Your task to perform on an android device: Open calendar and show me the fourth week of next month Image 0: 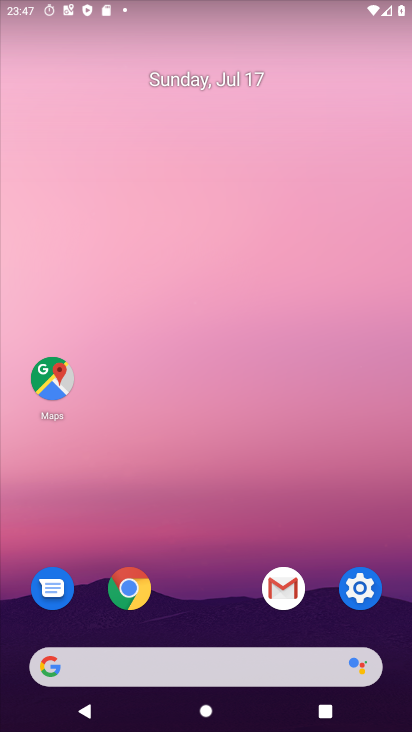
Step 0: drag from (245, 691) to (186, 292)
Your task to perform on an android device: Open calendar and show me the fourth week of next month Image 1: 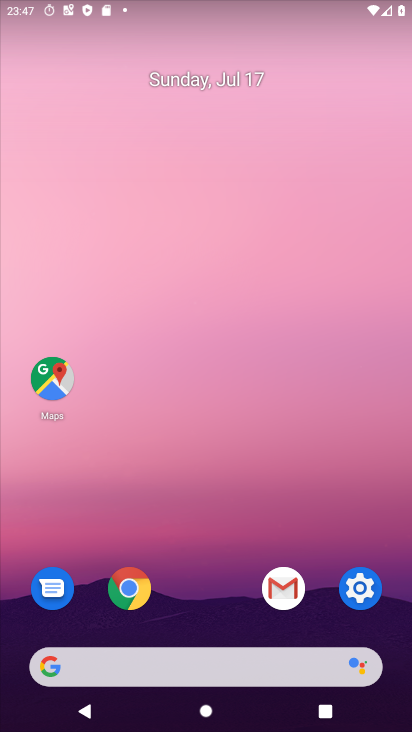
Step 1: drag from (227, 598) to (170, 90)
Your task to perform on an android device: Open calendar and show me the fourth week of next month Image 2: 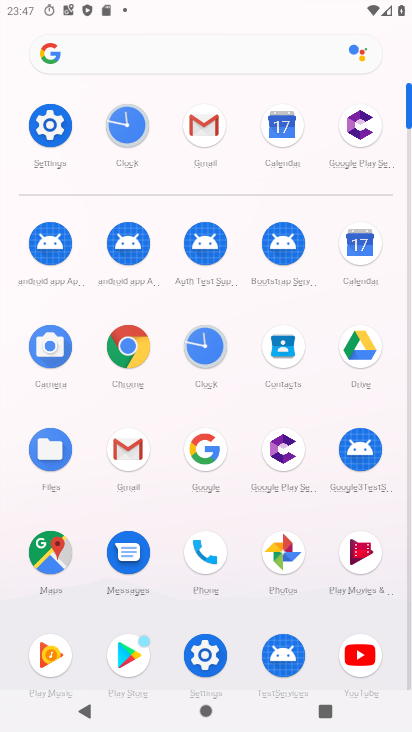
Step 2: click (349, 232)
Your task to perform on an android device: Open calendar and show me the fourth week of next month Image 3: 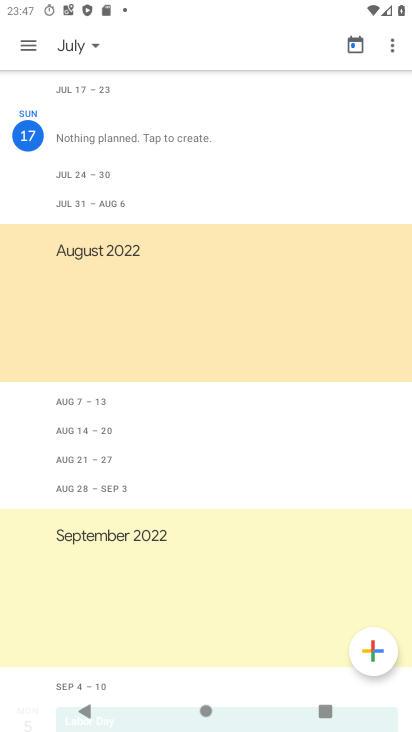
Step 3: click (18, 32)
Your task to perform on an android device: Open calendar and show me the fourth week of next month Image 4: 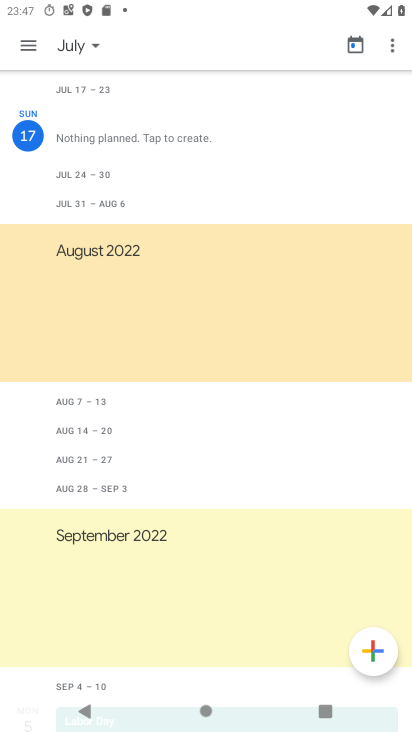
Step 4: click (21, 51)
Your task to perform on an android device: Open calendar and show me the fourth week of next month Image 5: 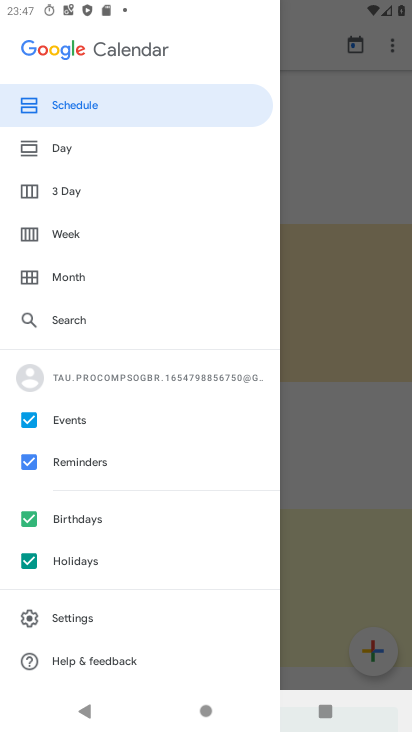
Step 5: click (73, 281)
Your task to perform on an android device: Open calendar and show me the fourth week of next month Image 6: 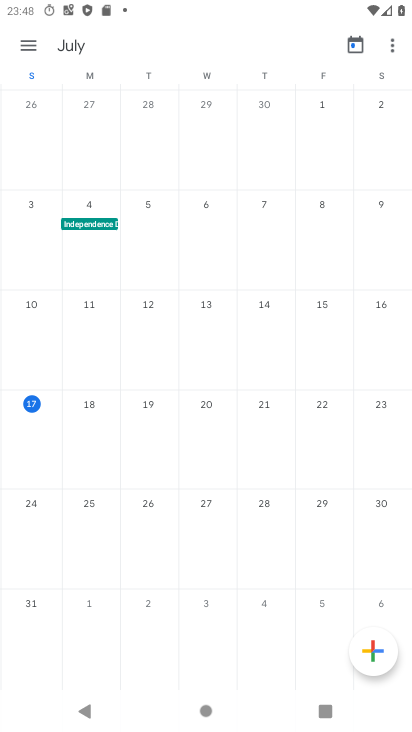
Step 6: drag from (335, 436) to (33, 490)
Your task to perform on an android device: Open calendar and show me the fourth week of next month Image 7: 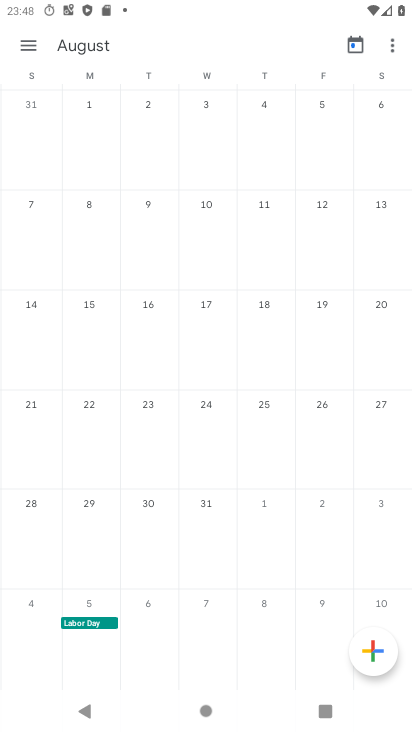
Step 7: click (77, 527)
Your task to perform on an android device: Open calendar and show me the fourth week of next month Image 8: 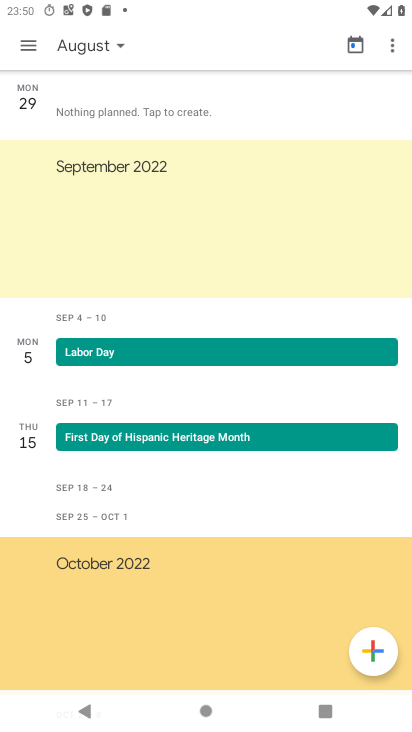
Step 8: task complete